Your task to perform on an android device: Open Chrome and go to the settings page Image 0: 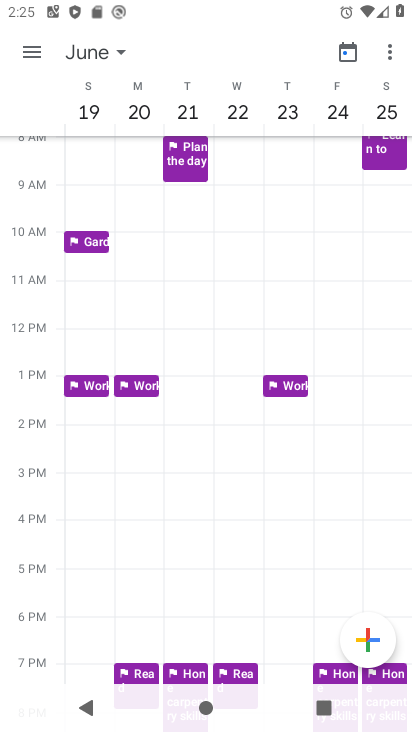
Step 0: press home button
Your task to perform on an android device: Open Chrome and go to the settings page Image 1: 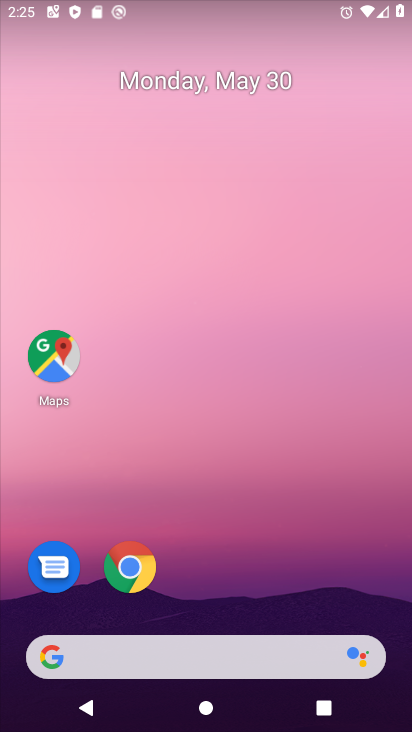
Step 1: click (126, 549)
Your task to perform on an android device: Open Chrome and go to the settings page Image 2: 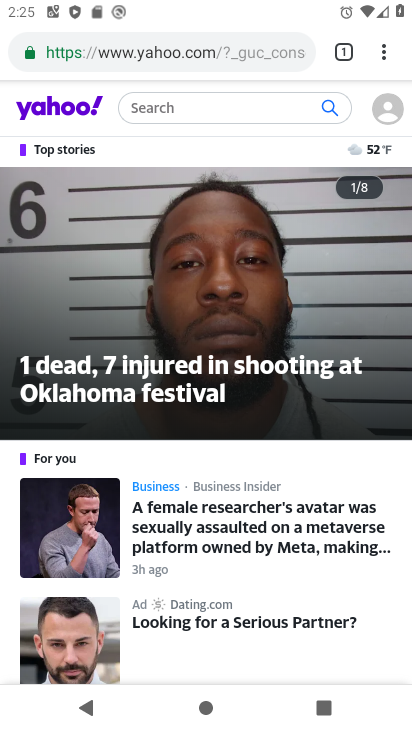
Step 2: click (384, 50)
Your task to perform on an android device: Open Chrome and go to the settings page Image 3: 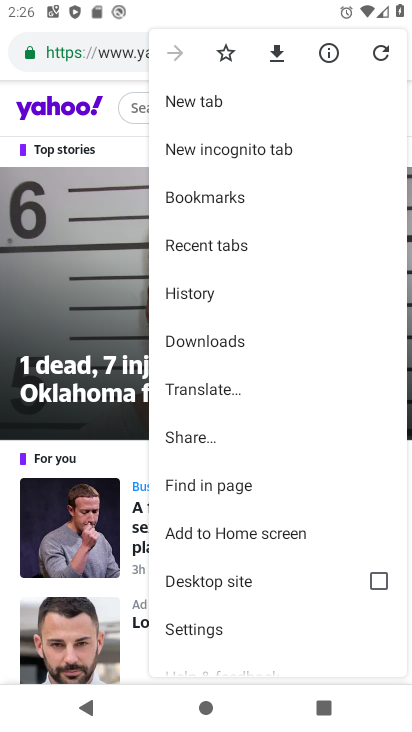
Step 3: click (224, 620)
Your task to perform on an android device: Open Chrome and go to the settings page Image 4: 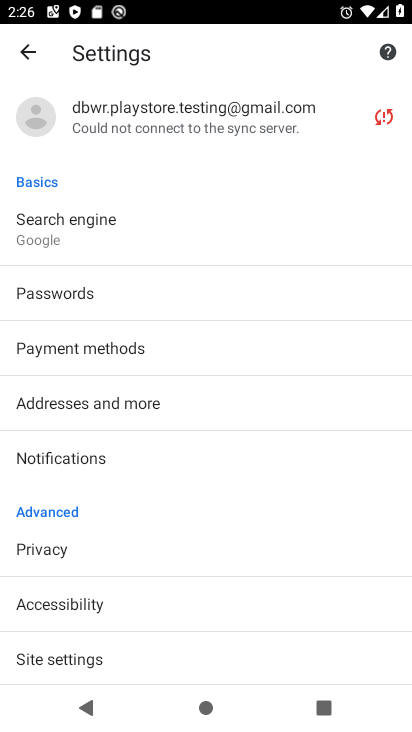
Step 4: task complete